Your task to perform on an android device: Go to Google Image 0: 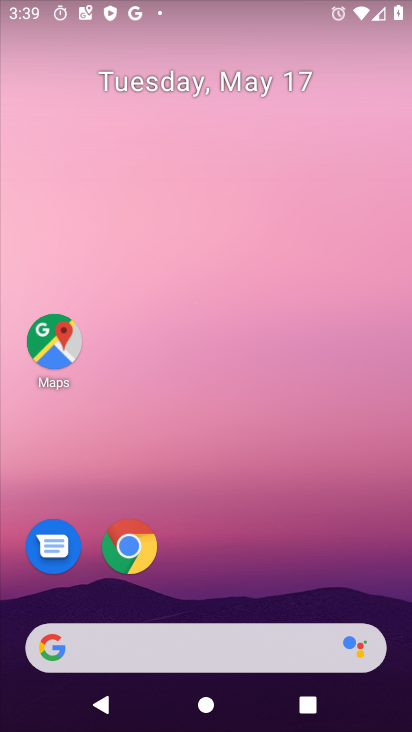
Step 0: drag from (398, 600) to (382, 277)
Your task to perform on an android device: Go to Google Image 1: 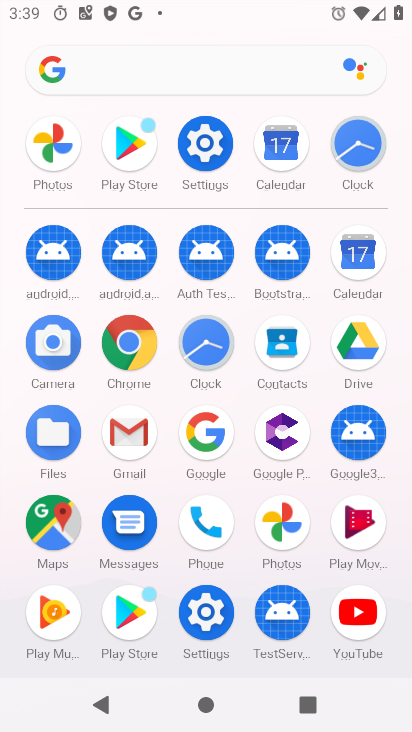
Step 1: click (202, 437)
Your task to perform on an android device: Go to Google Image 2: 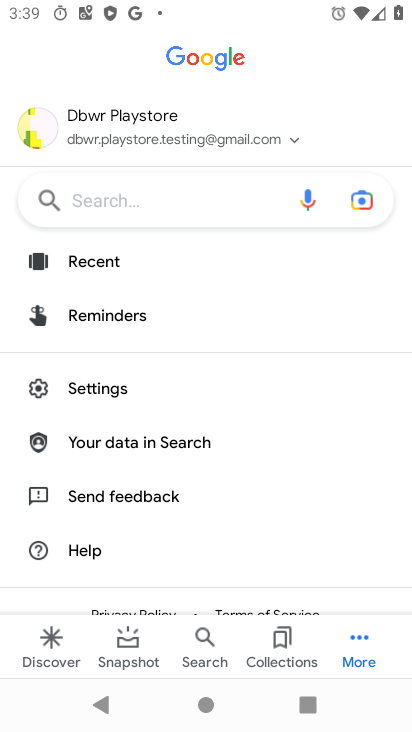
Step 2: task complete